Your task to perform on an android device: toggle location history Image 0: 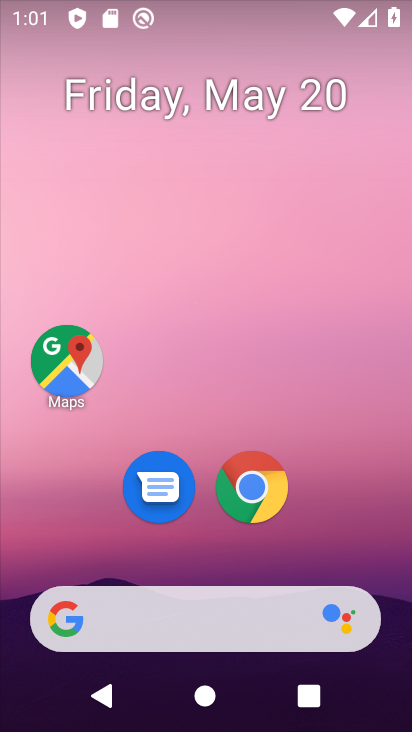
Step 0: drag from (353, 499) to (271, 50)
Your task to perform on an android device: toggle location history Image 1: 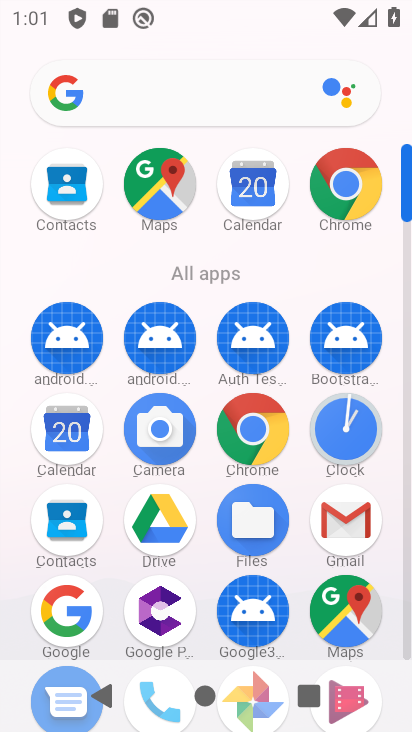
Step 1: drag from (16, 398) to (20, 150)
Your task to perform on an android device: toggle location history Image 2: 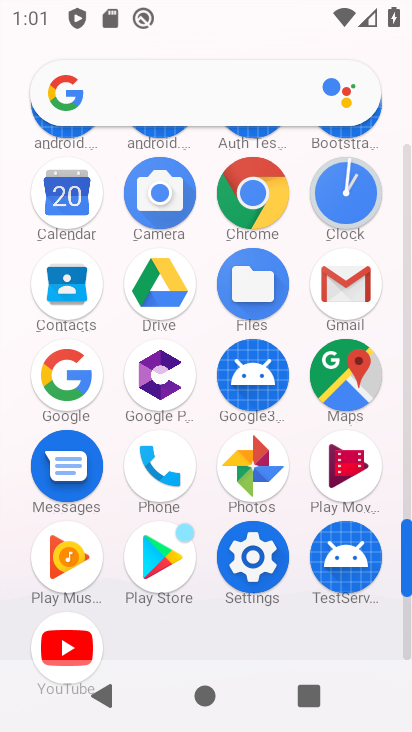
Step 2: click (256, 558)
Your task to perform on an android device: toggle location history Image 3: 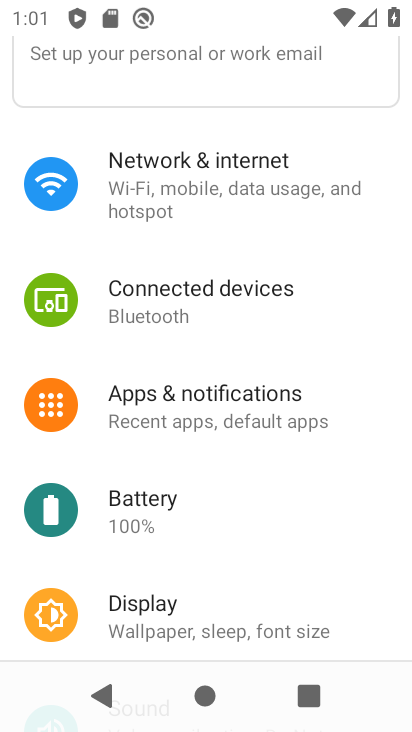
Step 3: drag from (288, 566) to (307, 176)
Your task to perform on an android device: toggle location history Image 4: 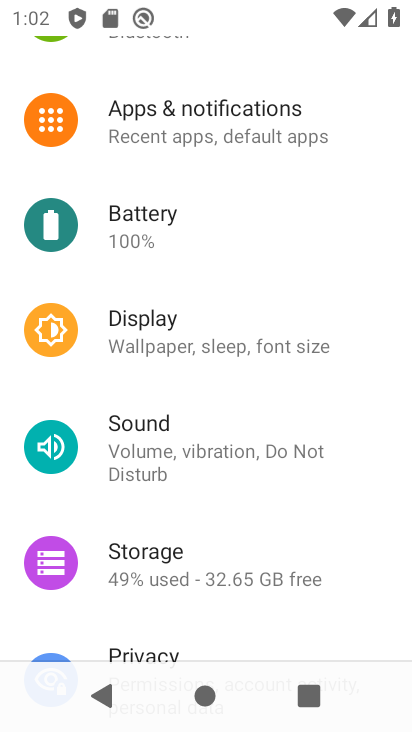
Step 4: drag from (248, 523) to (250, 114)
Your task to perform on an android device: toggle location history Image 5: 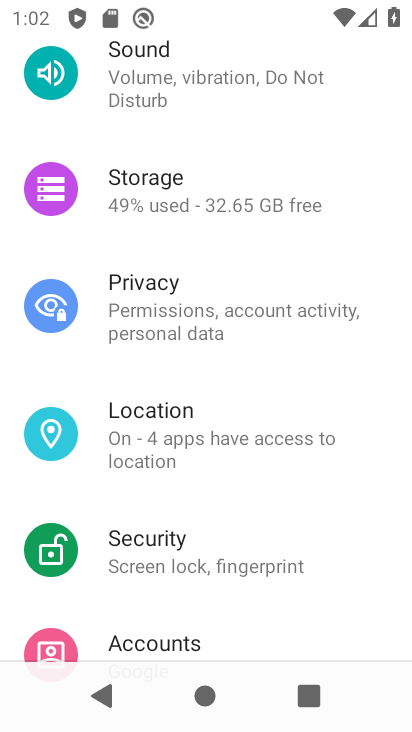
Step 5: click (157, 429)
Your task to perform on an android device: toggle location history Image 6: 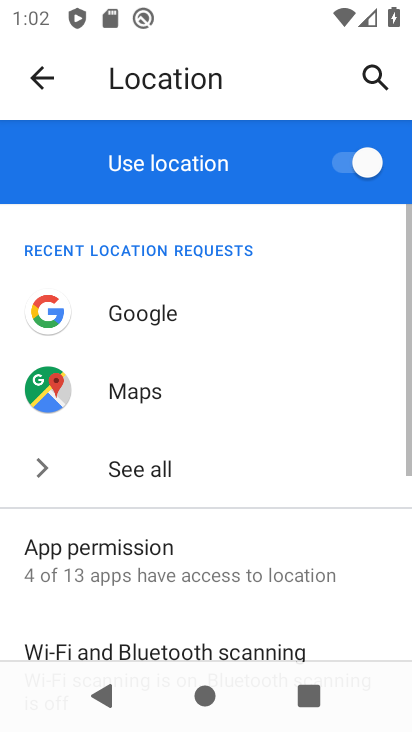
Step 6: drag from (244, 602) to (263, 169)
Your task to perform on an android device: toggle location history Image 7: 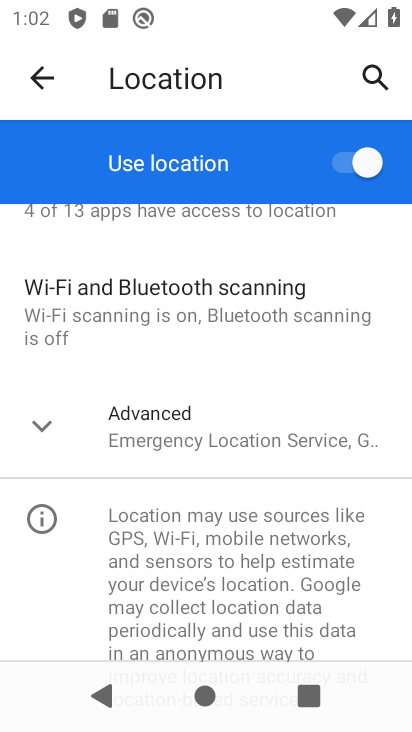
Step 7: click (154, 443)
Your task to perform on an android device: toggle location history Image 8: 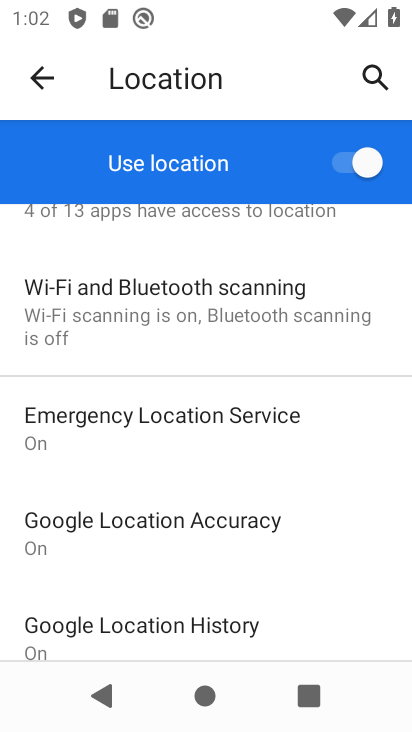
Step 8: drag from (265, 546) to (284, 307)
Your task to perform on an android device: toggle location history Image 9: 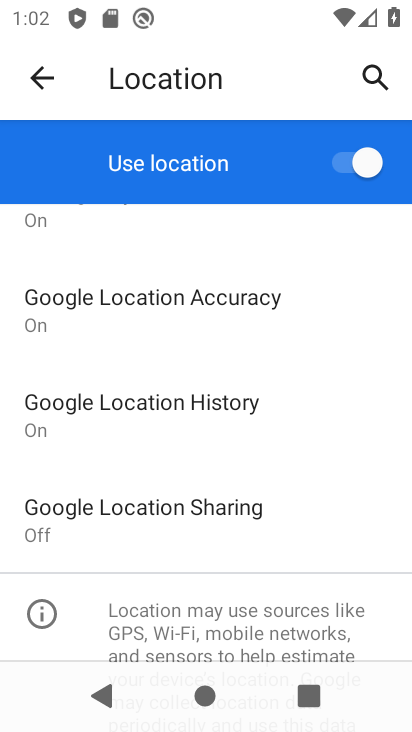
Step 9: click (197, 407)
Your task to perform on an android device: toggle location history Image 10: 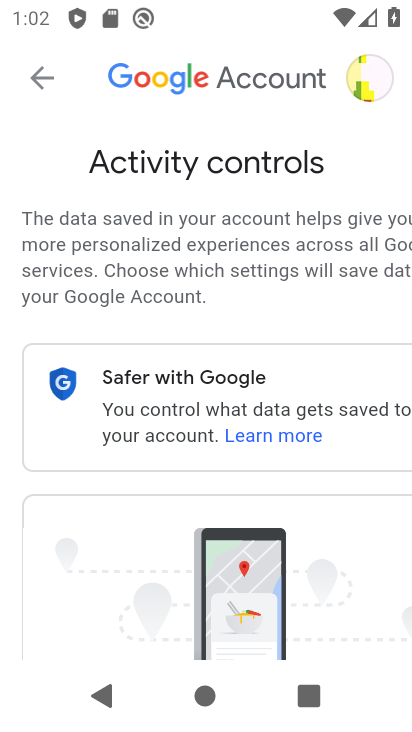
Step 10: drag from (197, 529) to (136, 98)
Your task to perform on an android device: toggle location history Image 11: 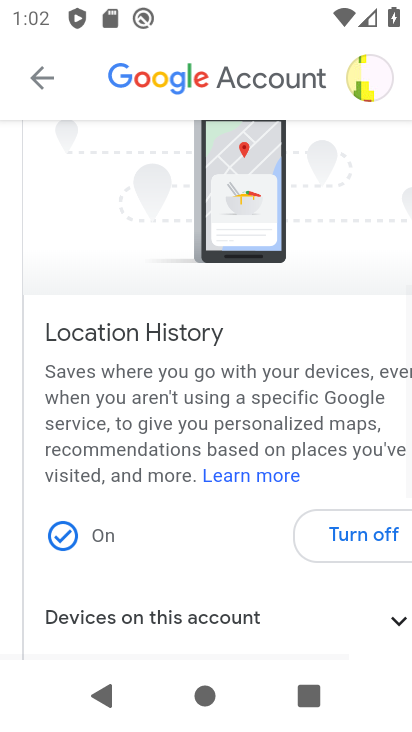
Step 11: drag from (85, 502) to (88, 182)
Your task to perform on an android device: toggle location history Image 12: 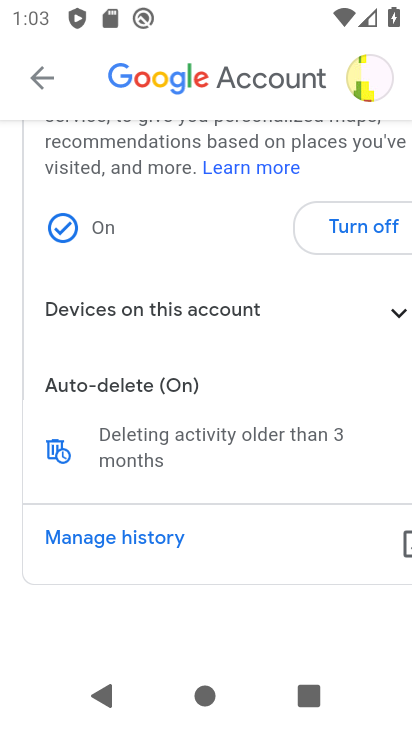
Step 12: click (331, 211)
Your task to perform on an android device: toggle location history Image 13: 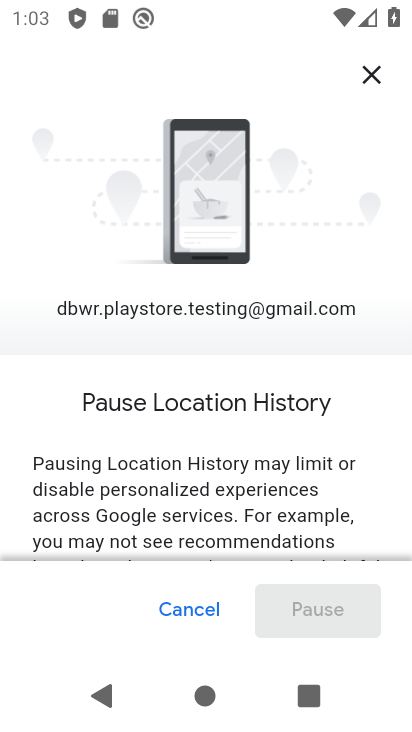
Step 13: drag from (282, 427) to (278, 101)
Your task to perform on an android device: toggle location history Image 14: 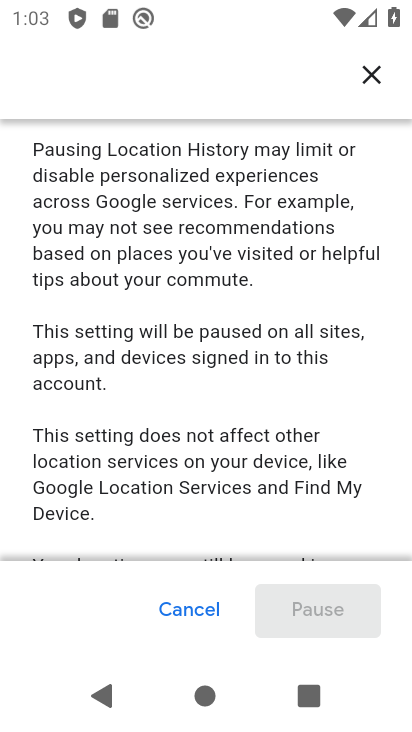
Step 14: drag from (201, 463) to (217, 88)
Your task to perform on an android device: toggle location history Image 15: 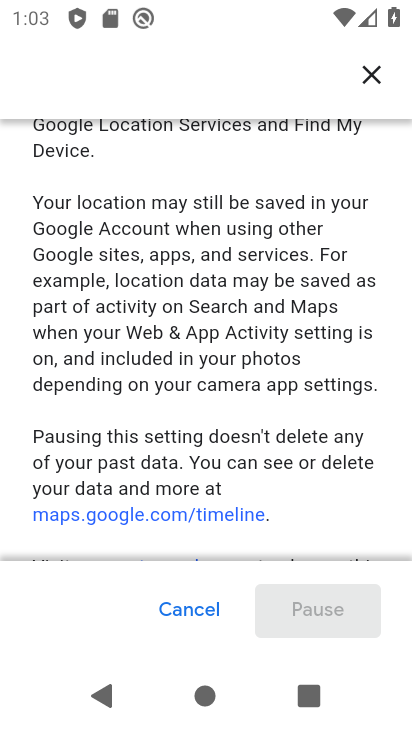
Step 15: drag from (182, 445) to (218, 97)
Your task to perform on an android device: toggle location history Image 16: 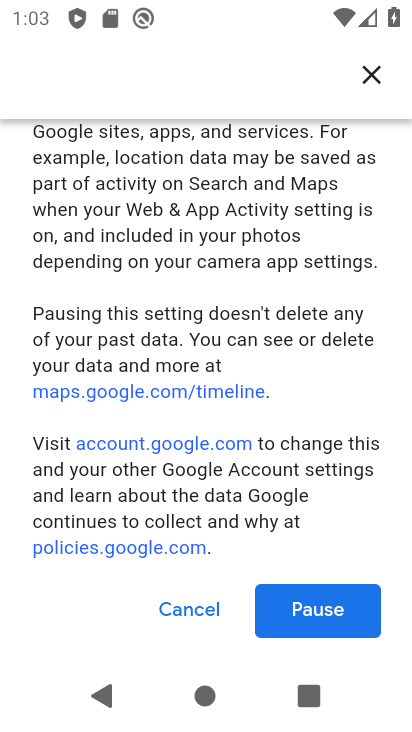
Step 16: drag from (227, 471) to (250, 172)
Your task to perform on an android device: toggle location history Image 17: 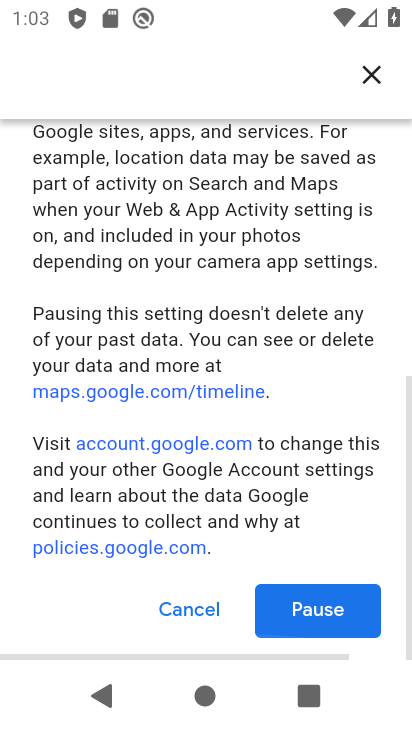
Step 17: click (307, 616)
Your task to perform on an android device: toggle location history Image 18: 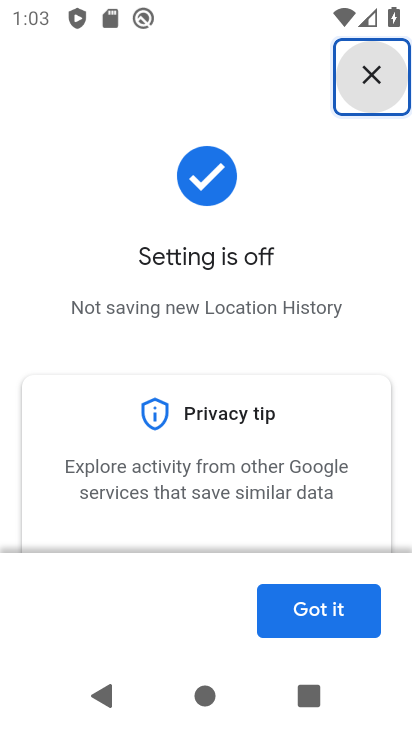
Step 18: click (307, 616)
Your task to perform on an android device: toggle location history Image 19: 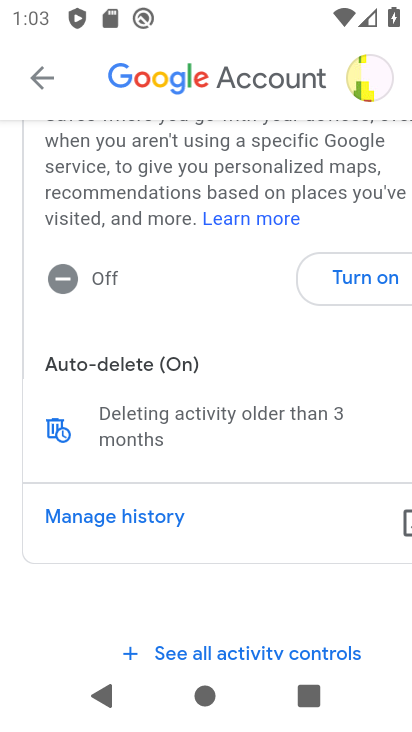
Step 19: task complete